Your task to perform on an android device: Is it going to rain tomorrow? Image 0: 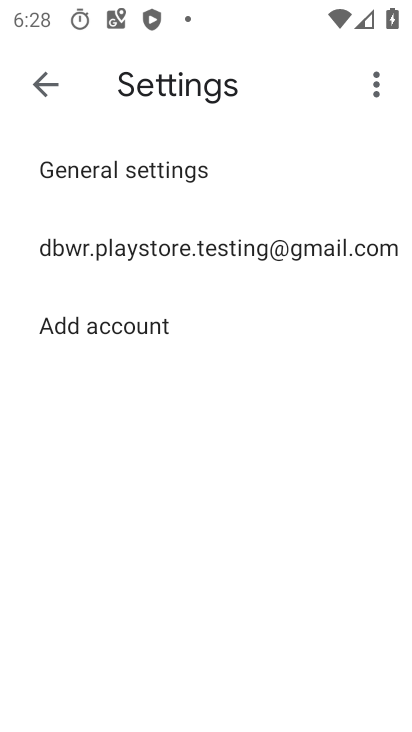
Step 0: press home button
Your task to perform on an android device: Is it going to rain tomorrow? Image 1: 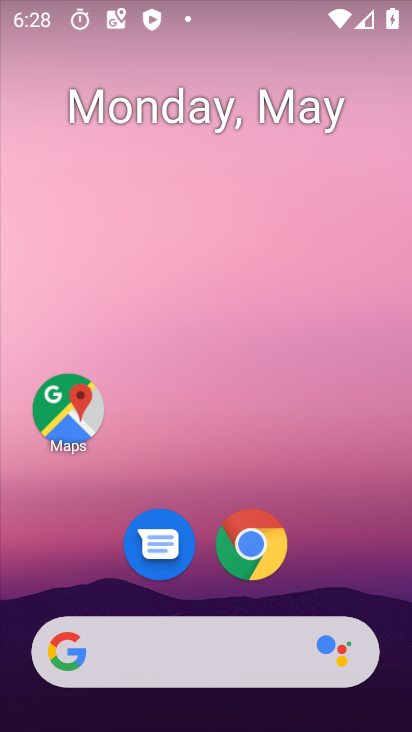
Step 1: click (206, 14)
Your task to perform on an android device: Is it going to rain tomorrow? Image 2: 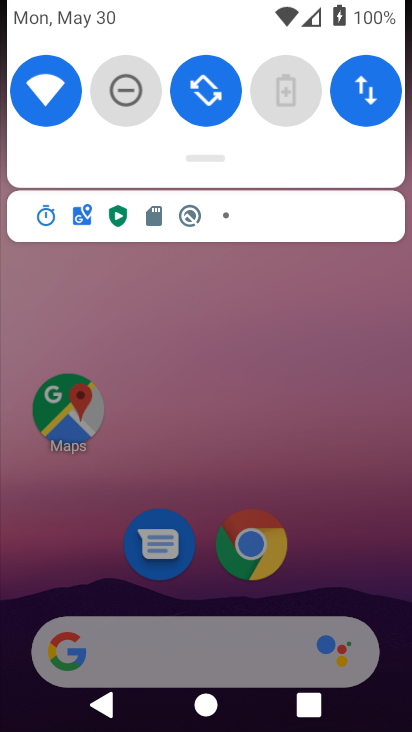
Step 2: drag from (344, 463) to (187, 7)
Your task to perform on an android device: Is it going to rain tomorrow? Image 3: 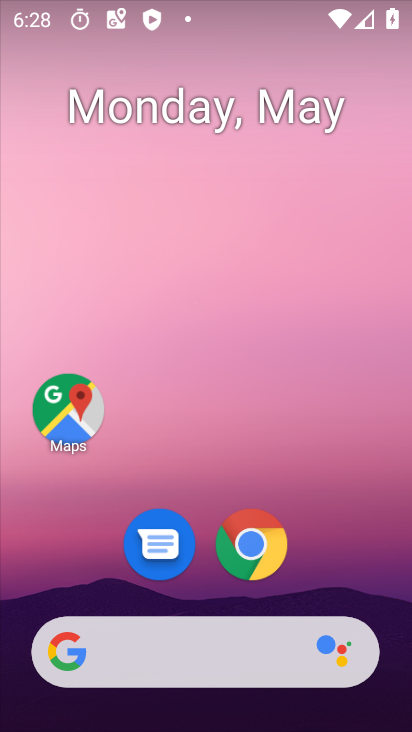
Step 3: drag from (337, 530) to (212, 17)
Your task to perform on an android device: Is it going to rain tomorrow? Image 4: 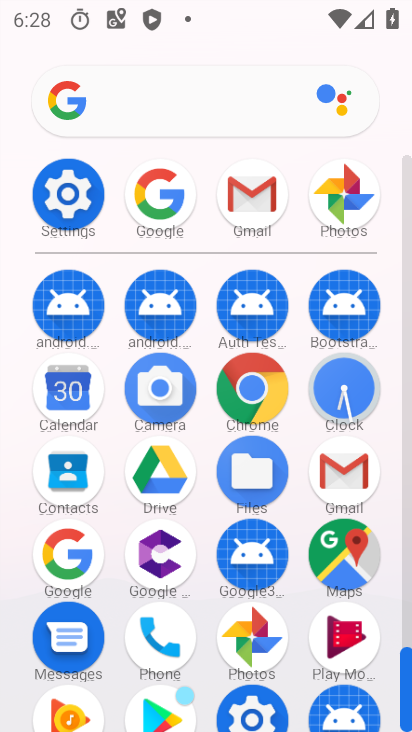
Step 4: click (75, 565)
Your task to perform on an android device: Is it going to rain tomorrow? Image 5: 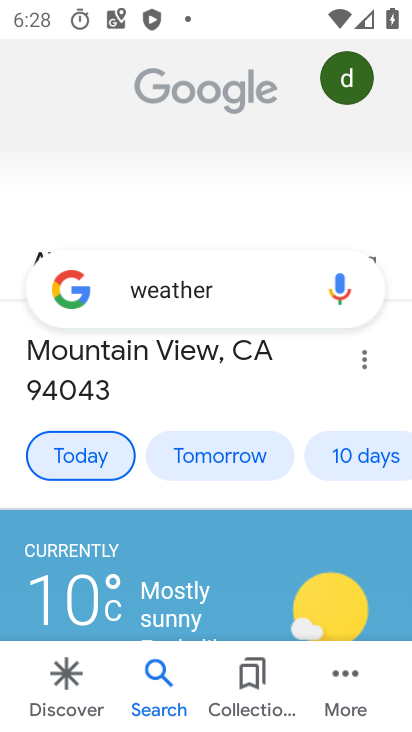
Step 5: drag from (186, 563) to (197, 339)
Your task to perform on an android device: Is it going to rain tomorrow? Image 6: 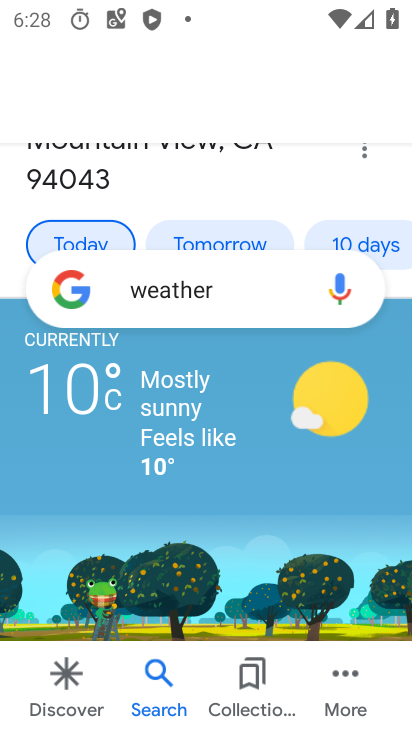
Step 6: click (222, 228)
Your task to perform on an android device: Is it going to rain tomorrow? Image 7: 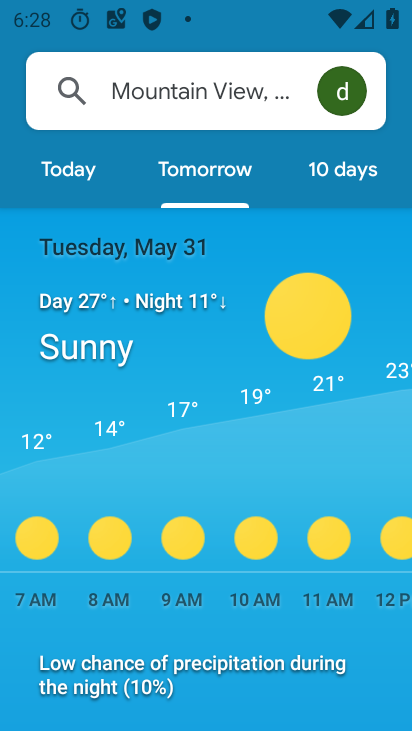
Step 7: task complete